Your task to perform on an android device: install app "Flipkart Online Shopping App" Image 0: 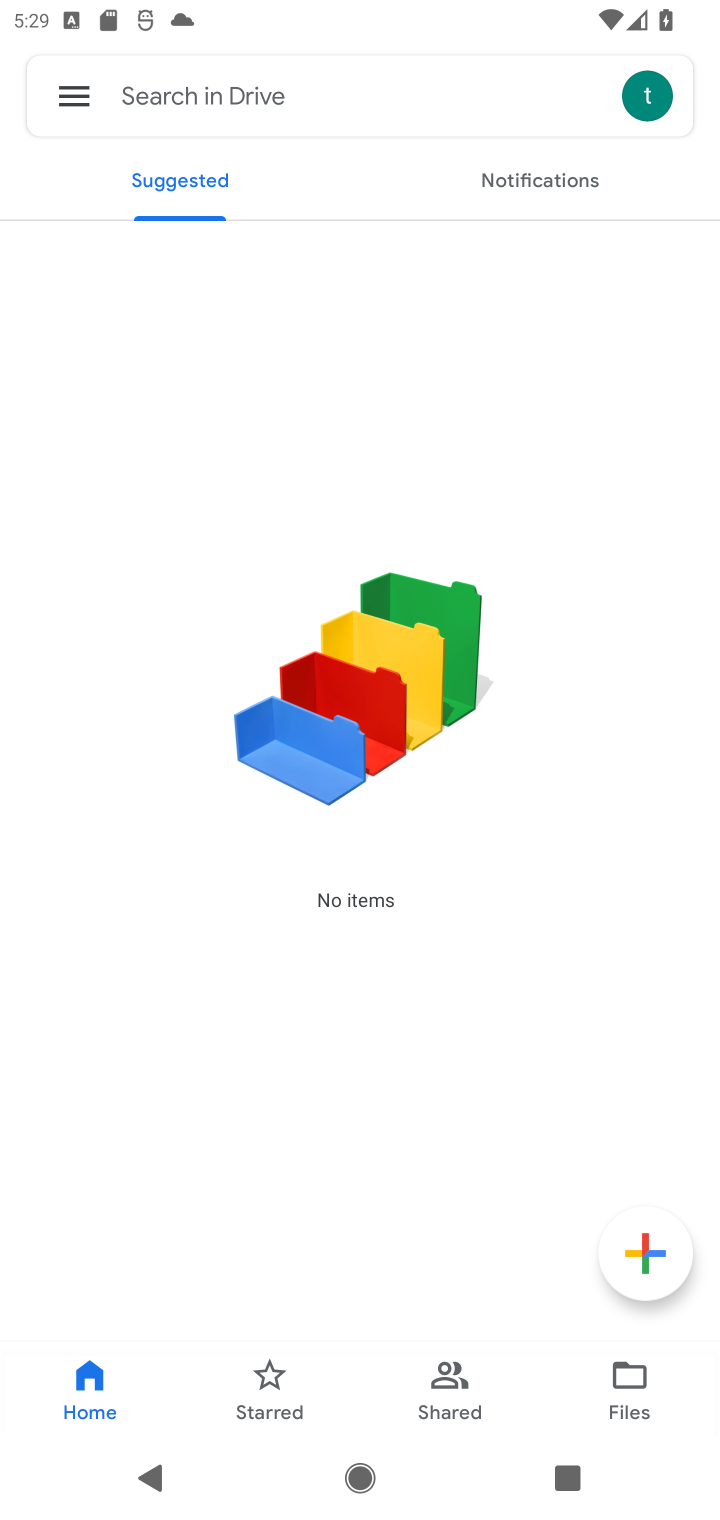
Step 0: press home button
Your task to perform on an android device: install app "Flipkart Online Shopping App" Image 1: 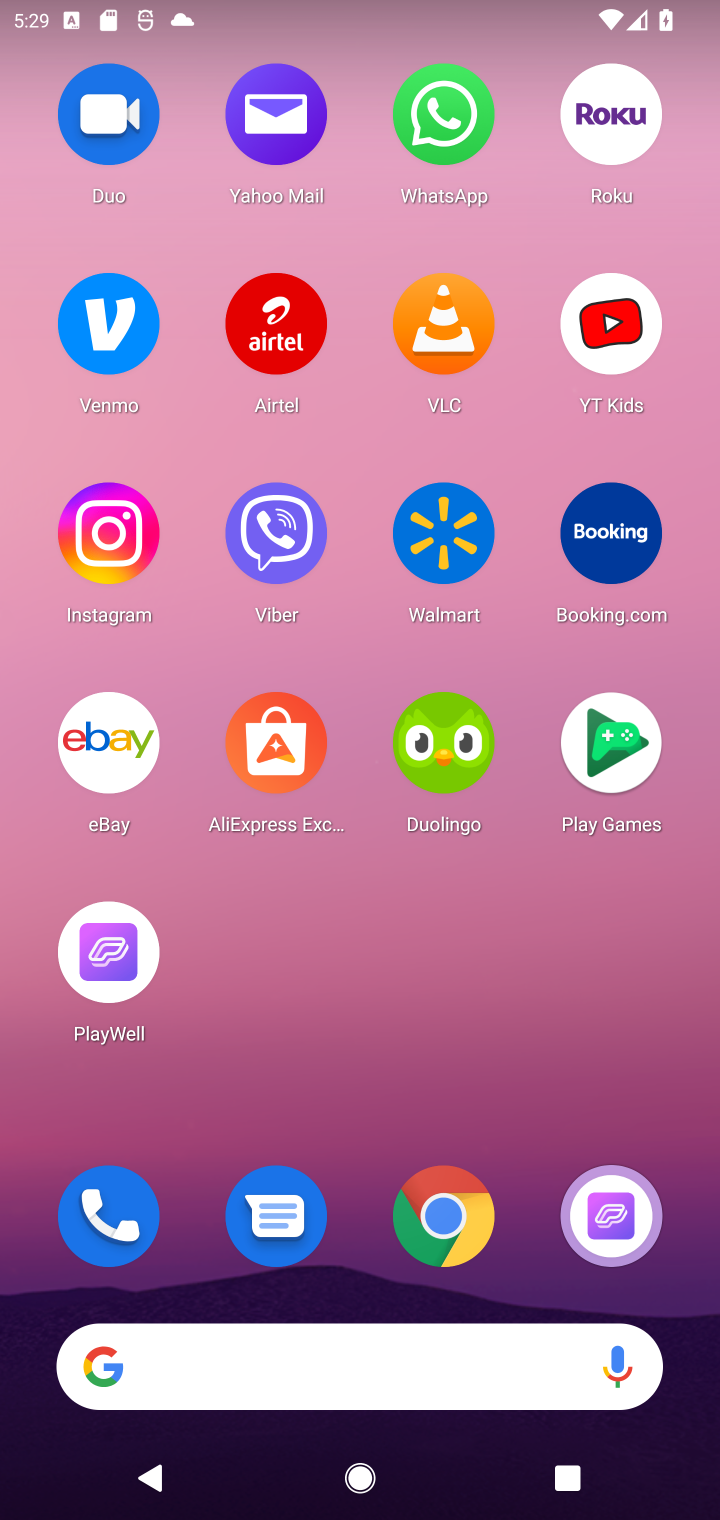
Step 1: drag from (385, 1070) to (465, 129)
Your task to perform on an android device: install app "Flipkart Online Shopping App" Image 2: 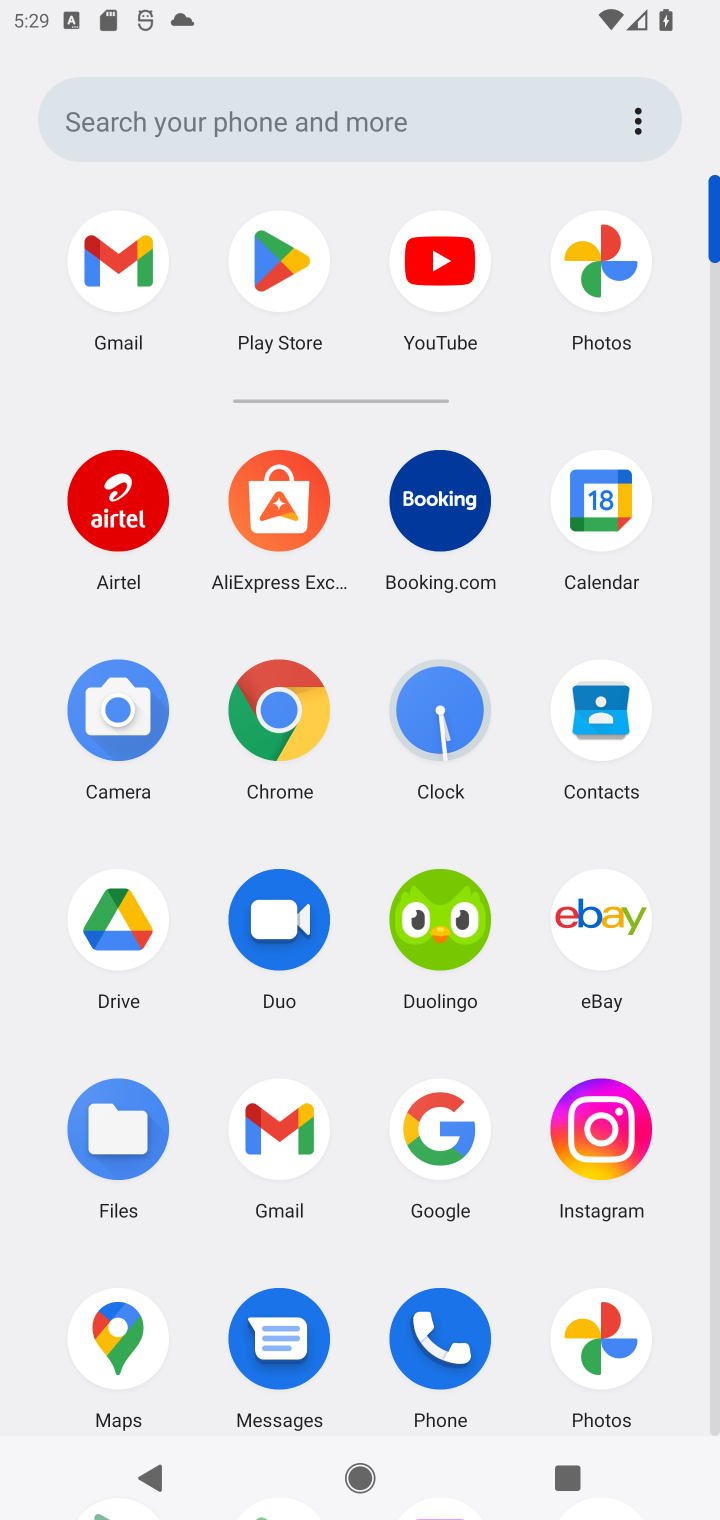
Step 2: click (250, 284)
Your task to perform on an android device: install app "Flipkart Online Shopping App" Image 3: 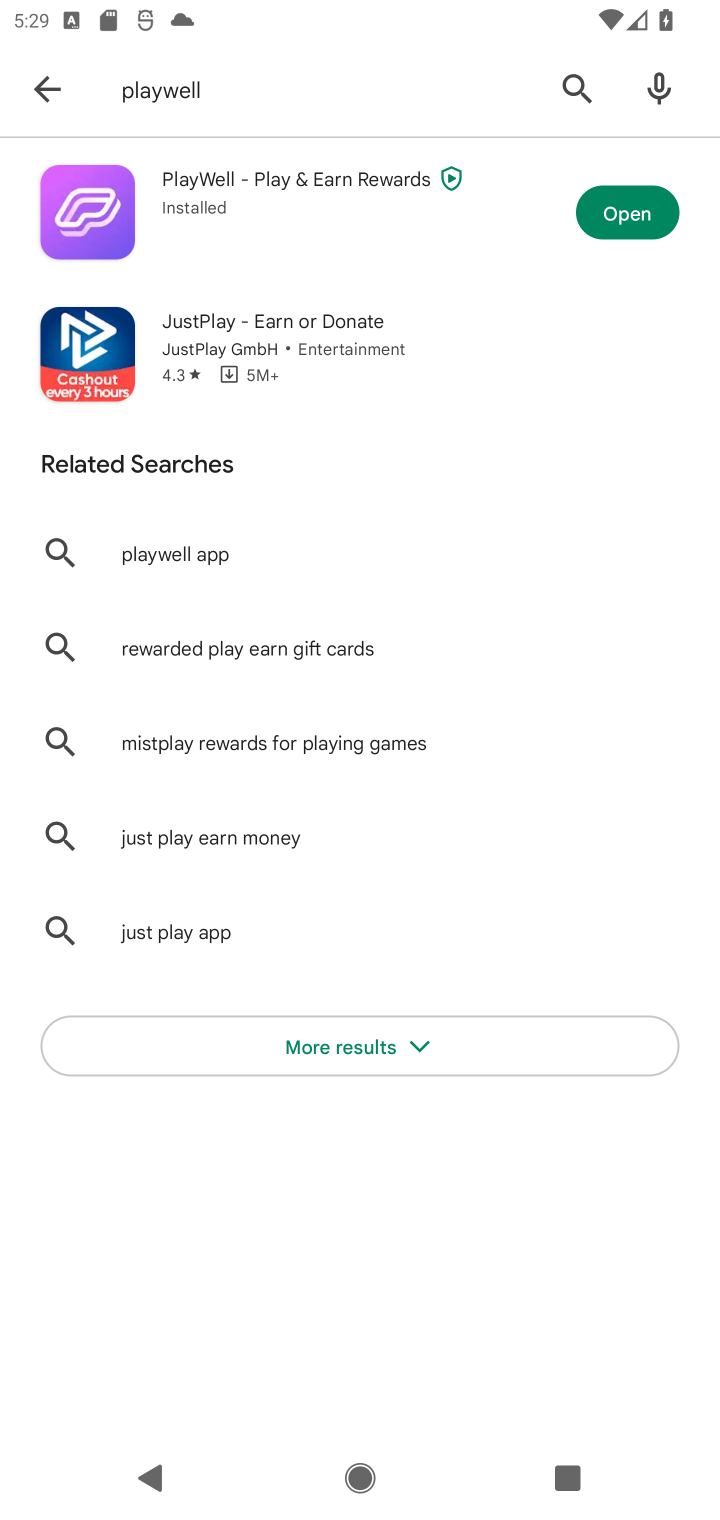
Step 3: click (565, 93)
Your task to perform on an android device: install app "Flipkart Online Shopping App" Image 4: 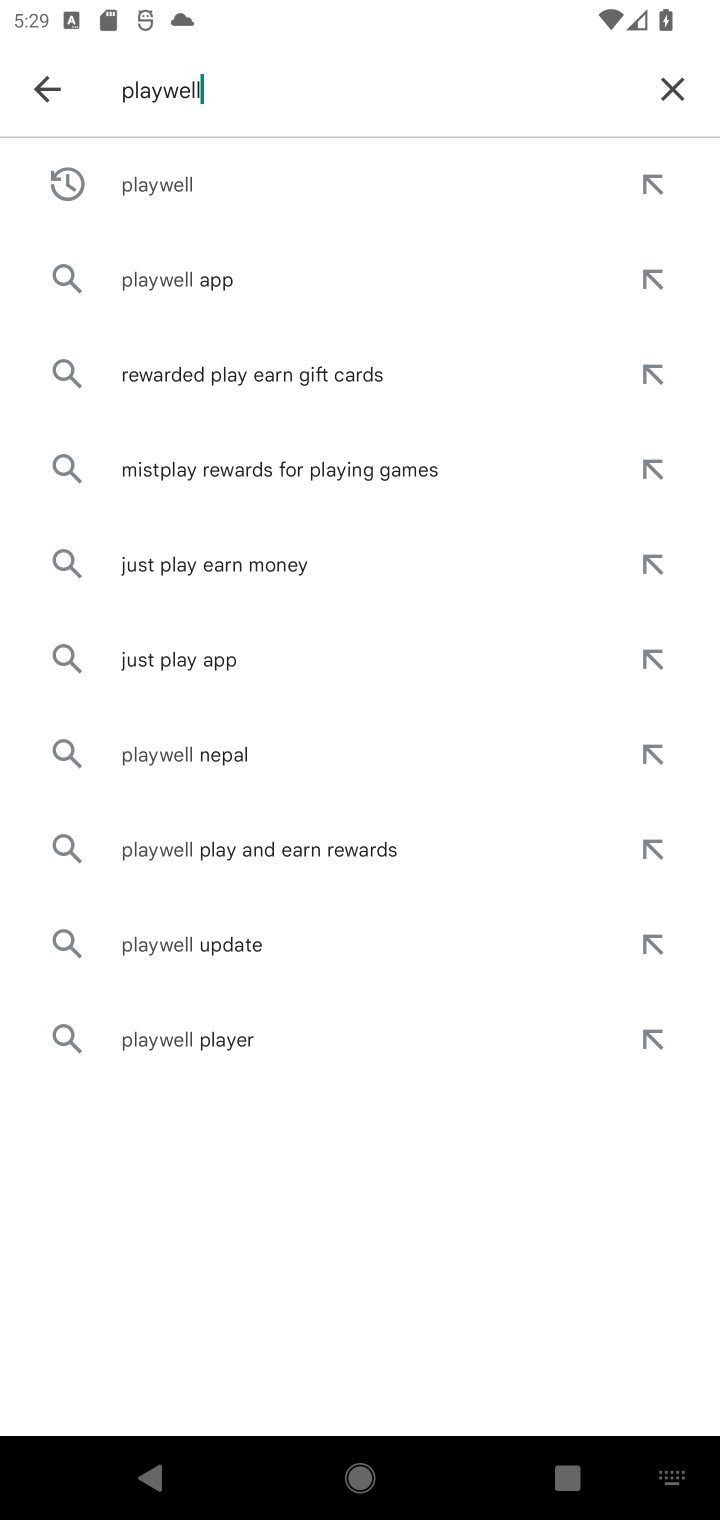
Step 4: click (673, 84)
Your task to perform on an android device: install app "Flipkart Online Shopping App" Image 5: 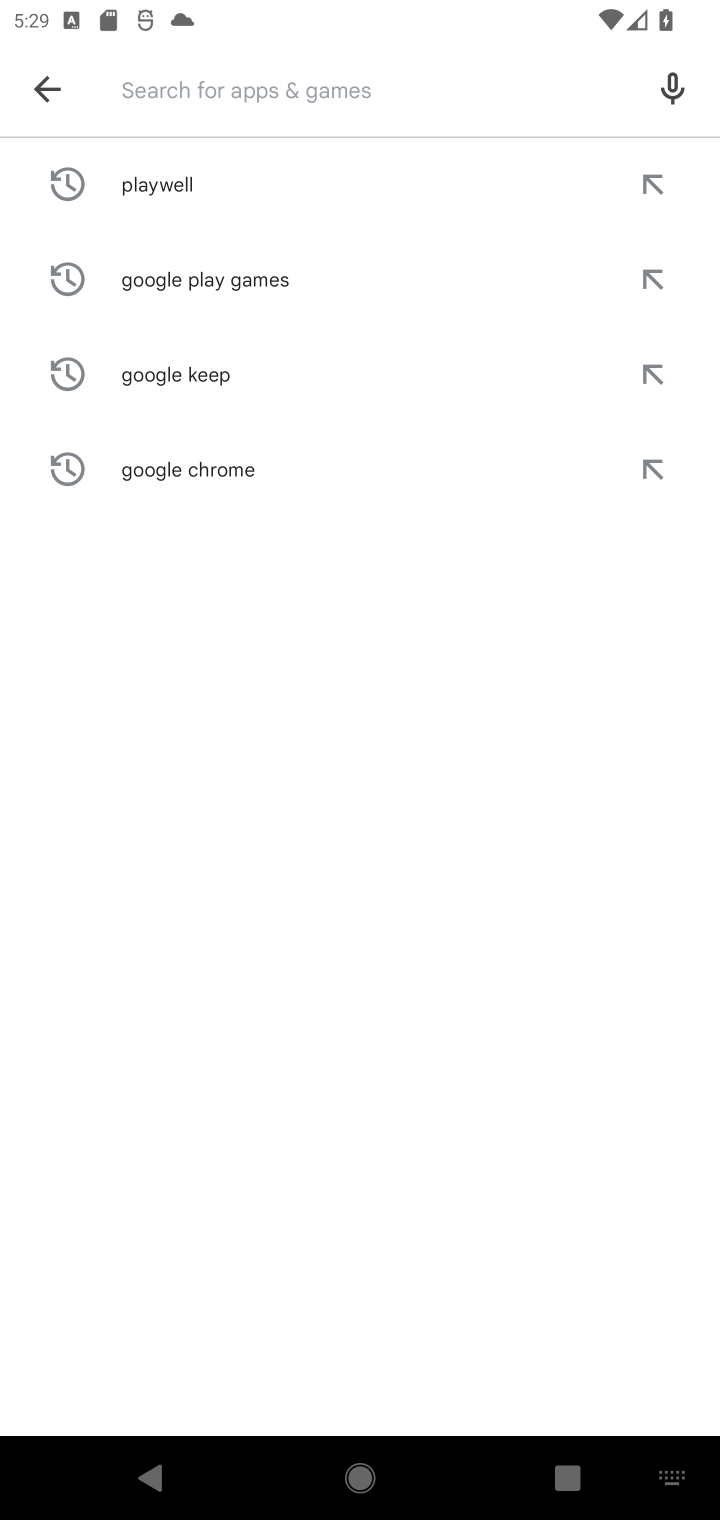
Step 5: type "Flipkart Online Shopping App"
Your task to perform on an android device: install app "Flipkart Online Shopping App" Image 6: 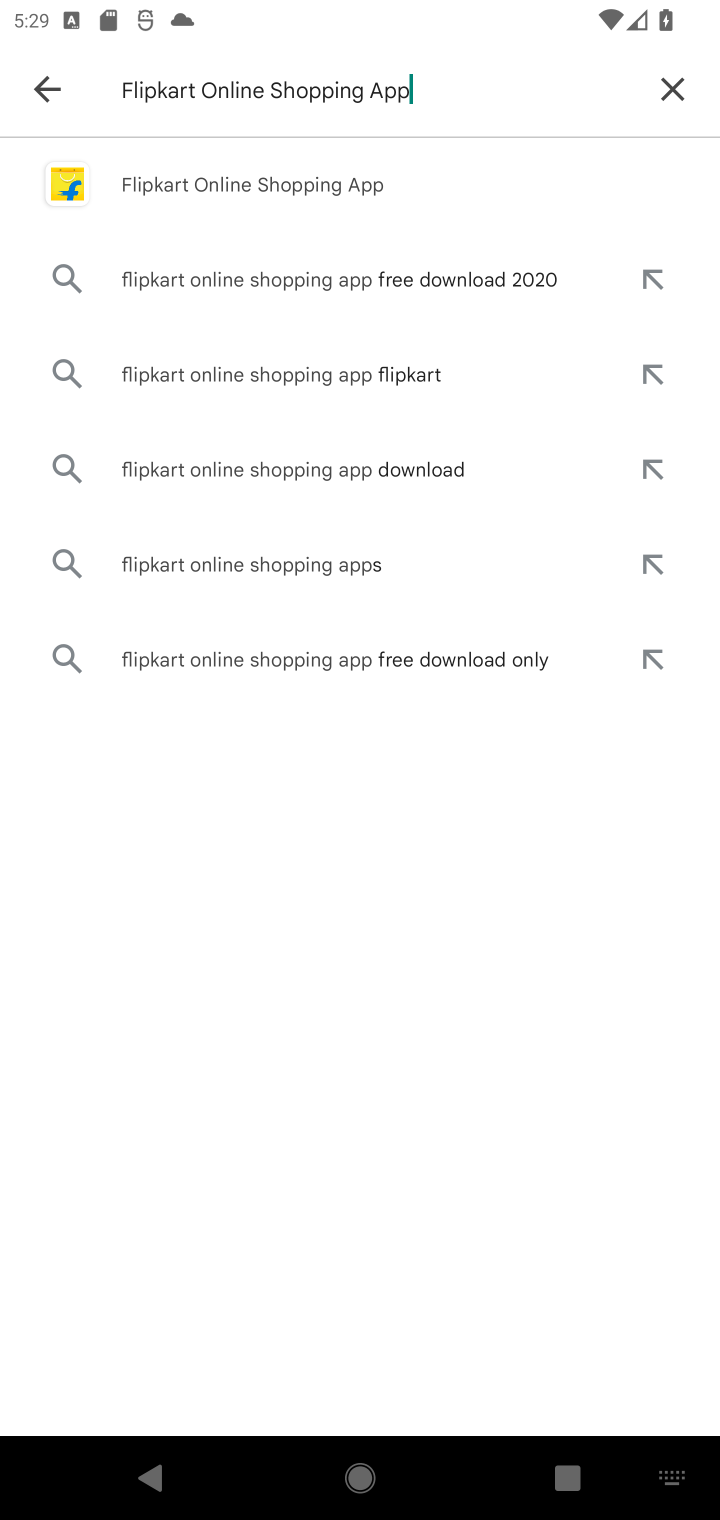
Step 6: click (319, 187)
Your task to perform on an android device: install app "Flipkart Online Shopping App" Image 7: 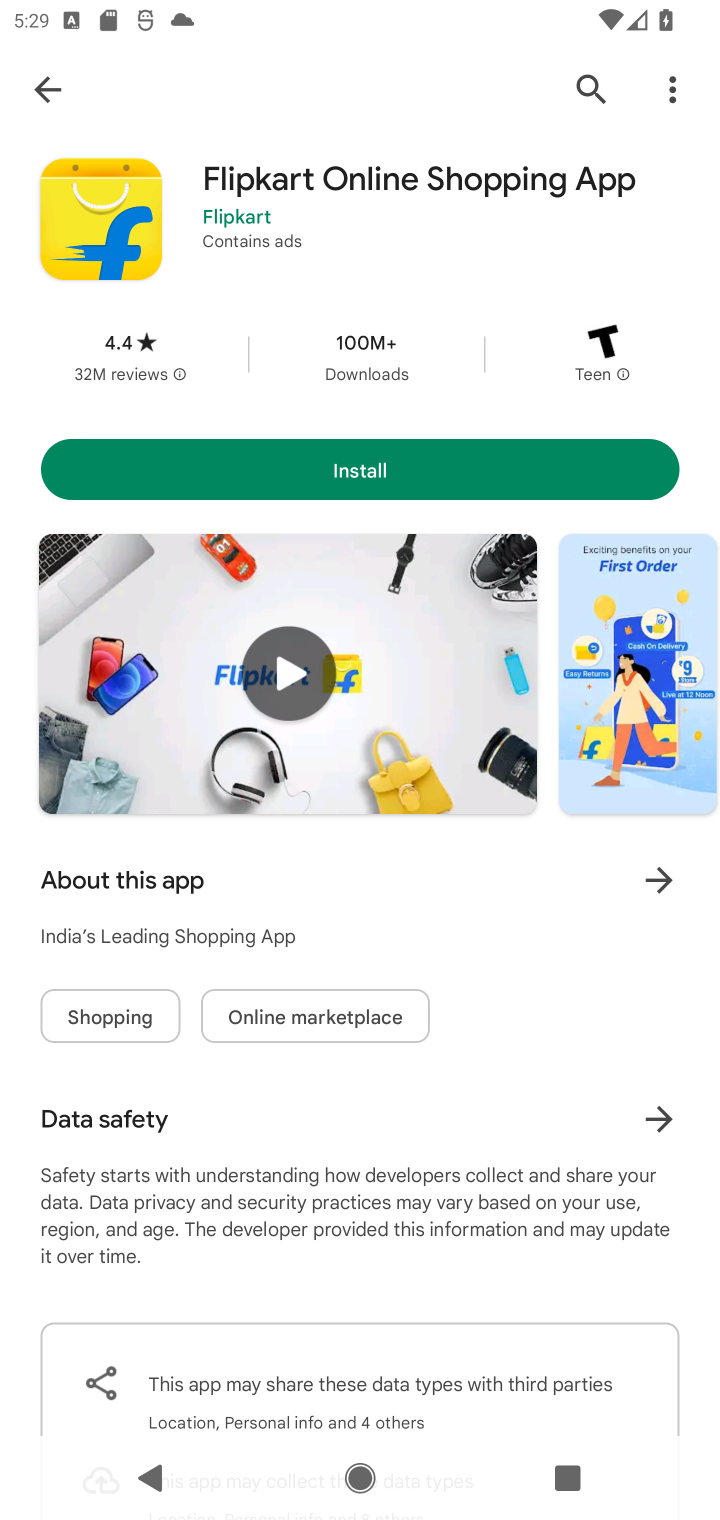
Step 7: click (457, 476)
Your task to perform on an android device: install app "Flipkart Online Shopping App" Image 8: 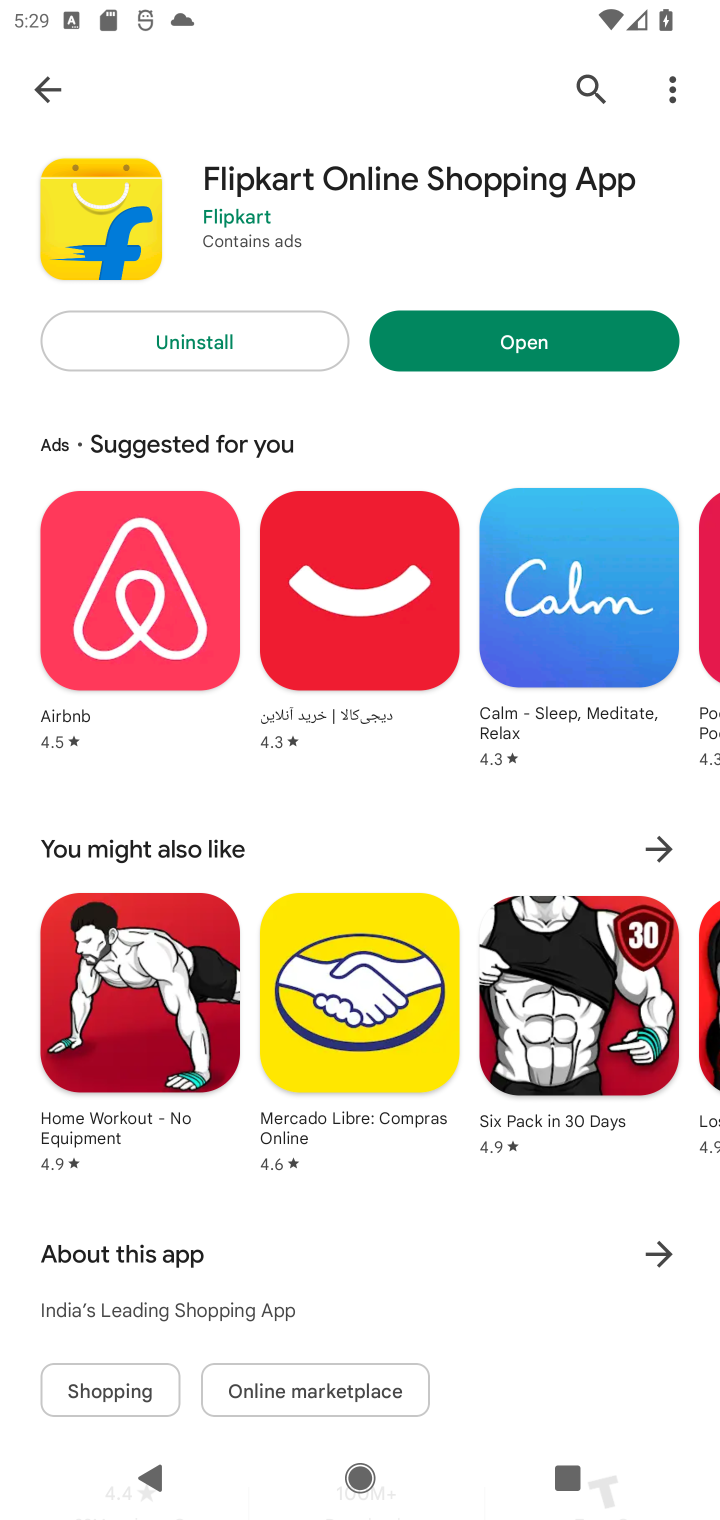
Step 8: task complete